Your task to perform on an android device: add a contact Image 0: 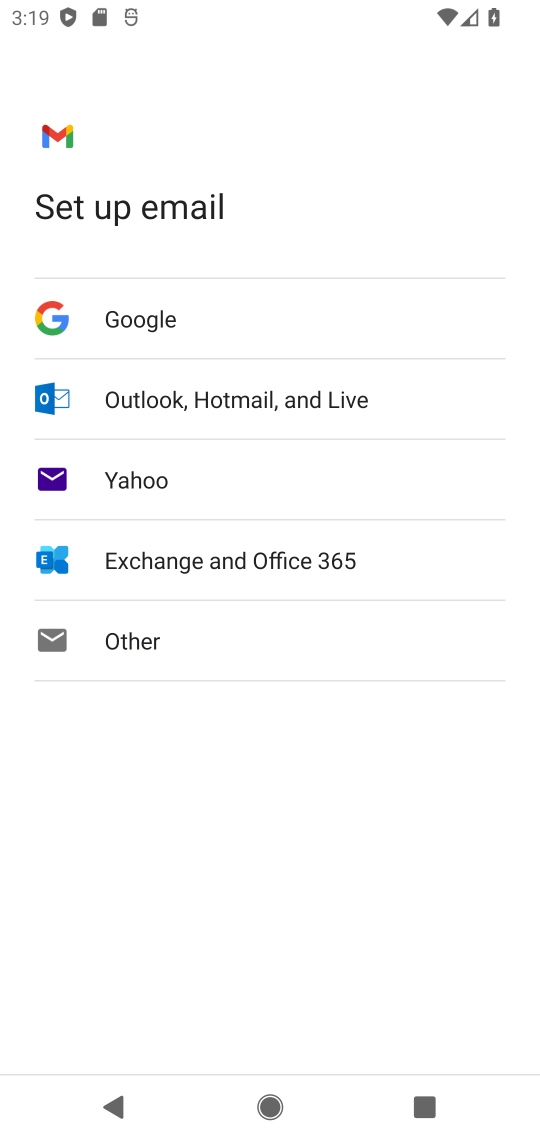
Step 0: press home button
Your task to perform on an android device: add a contact Image 1: 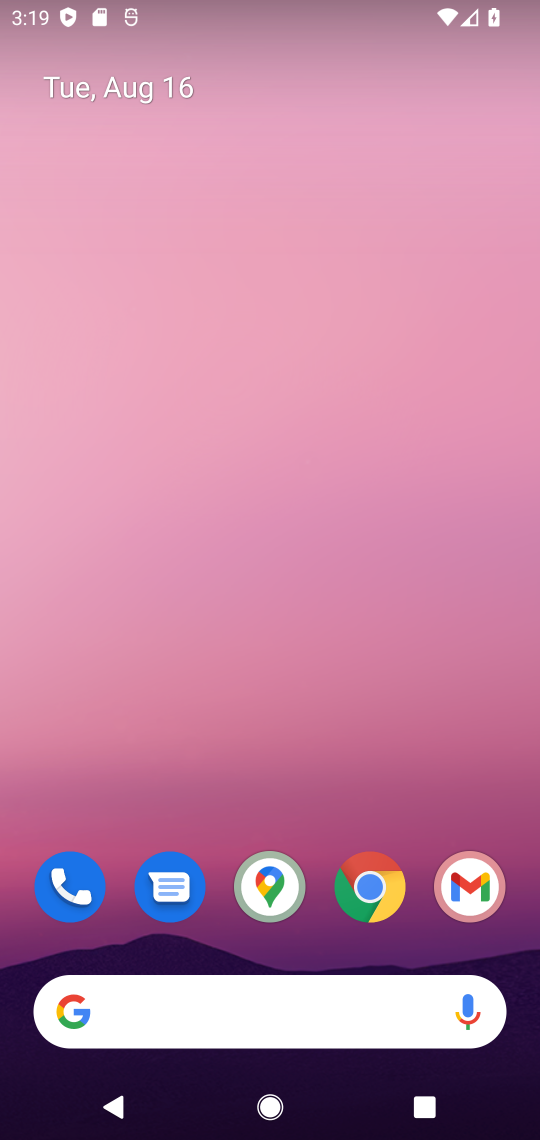
Step 1: drag from (222, 773) to (302, 34)
Your task to perform on an android device: add a contact Image 2: 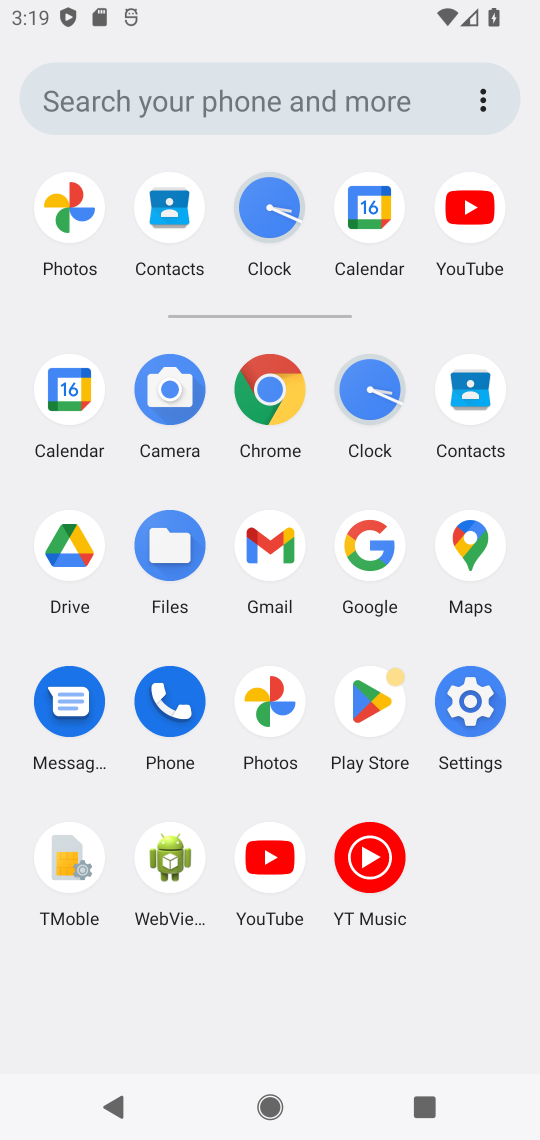
Step 2: click (457, 383)
Your task to perform on an android device: add a contact Image 3: 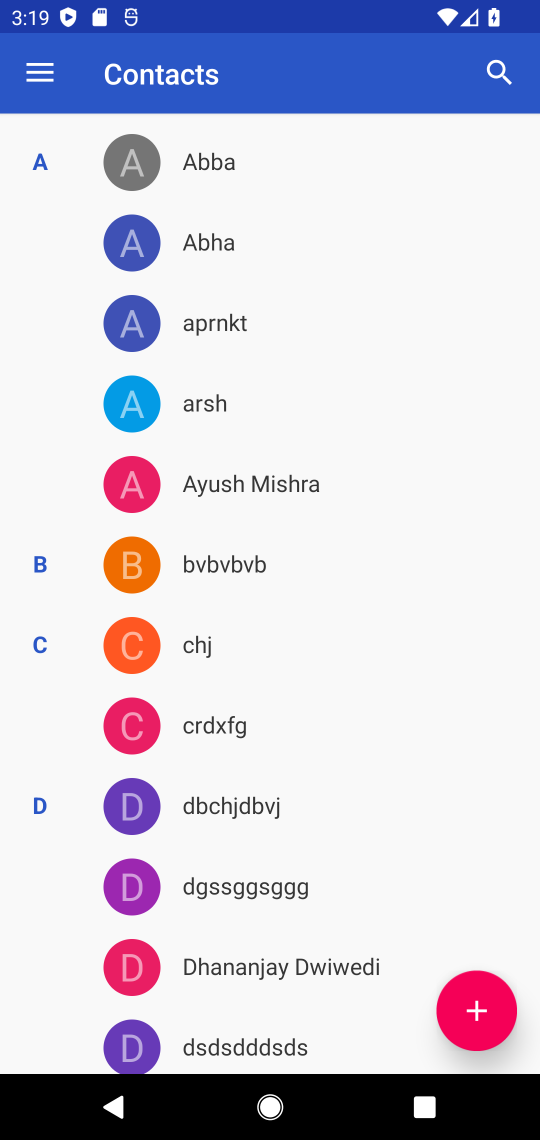
Step 3: click (471, 1028)
Your task to perform on an android device: add a contact Image 4: 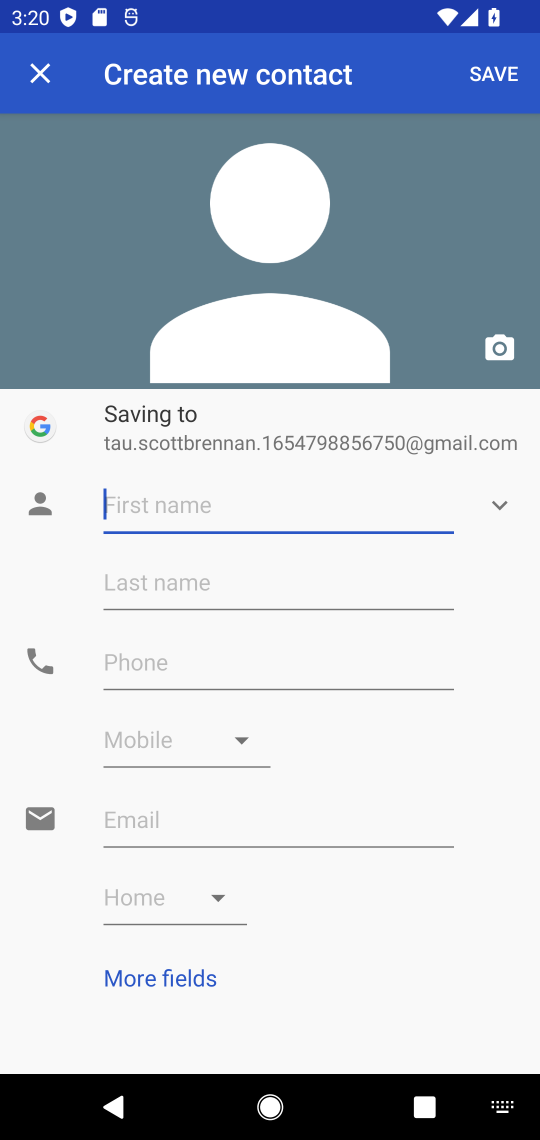
Step 4: type "33"
Your task to perform on an android device: add a contact Image 5: 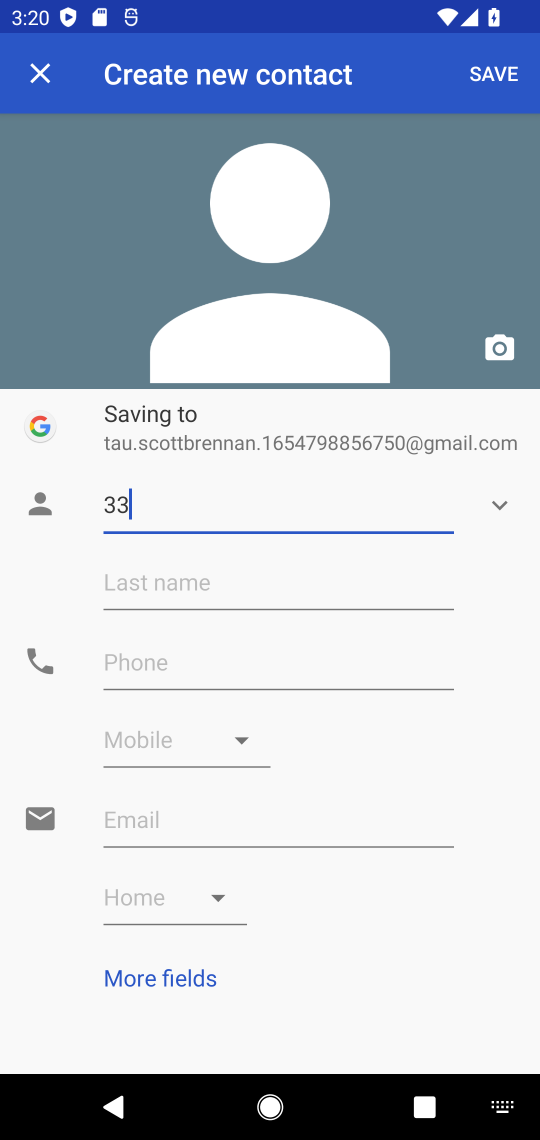
Step 5: type ""
Your task to perform on an android device: add a contact Image 6: 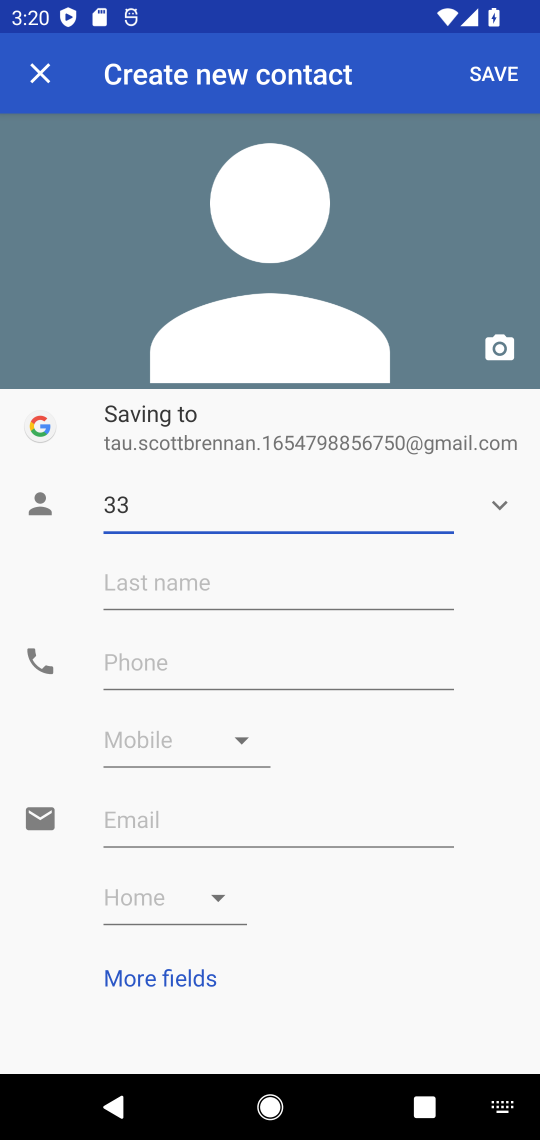
Step 6: click (491, 69)
Your task to perform on an android device: add a contact Image 7: 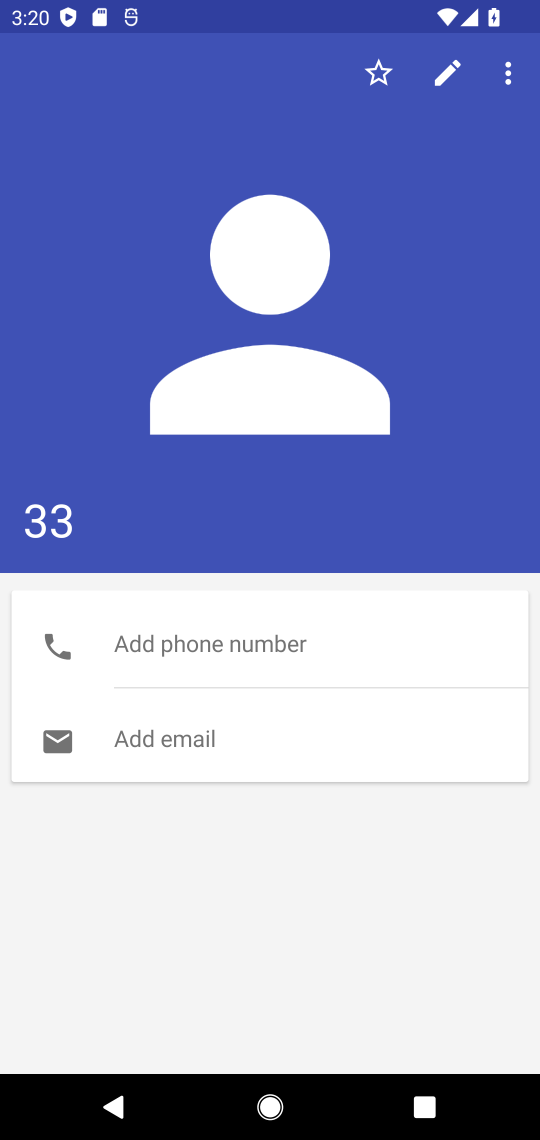
Step 7: task complete